Your task to perform on an android device: Open calendar and show me the second week of next month Image 0: 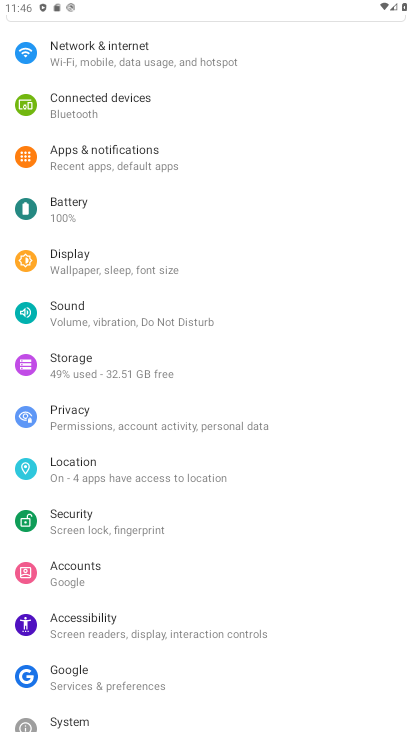
Step 0: press home button
Your task to perform on an android device: Open calendar and show me the second week of next month Image 1: 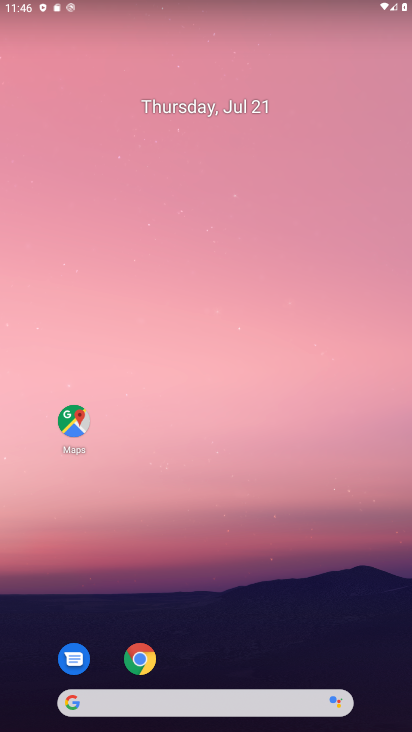
Step 1: task complete